Your task to perform on an android device: Toggle the flashlight Image 0: 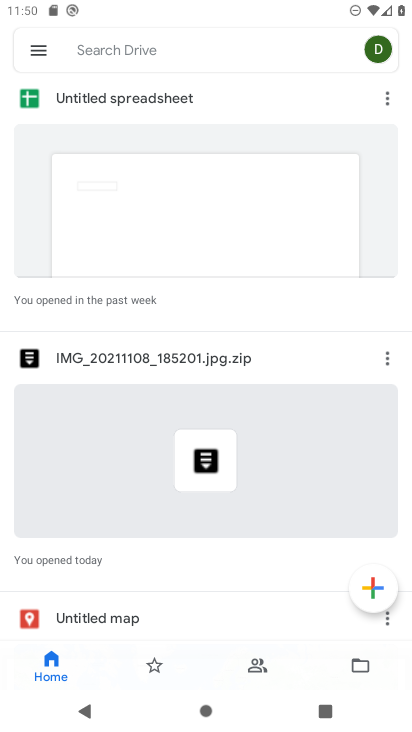
Step 0: press home button
Your task to perform on an android device: Toggle the flashlight Image 1: 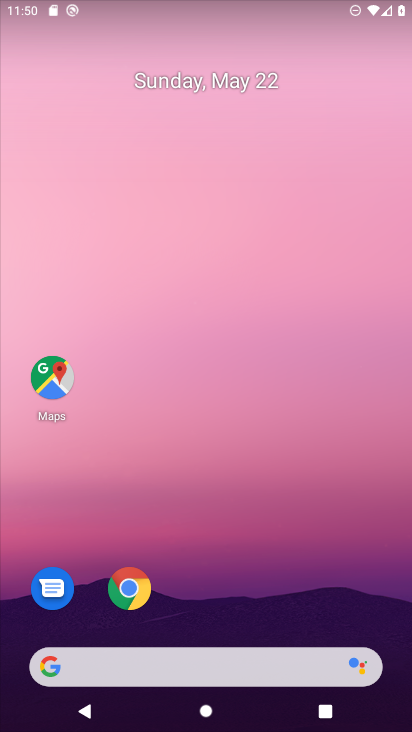
Step 1: task complete